Your task to perform on an android device: Show me the alarms in the clock app Image 0: 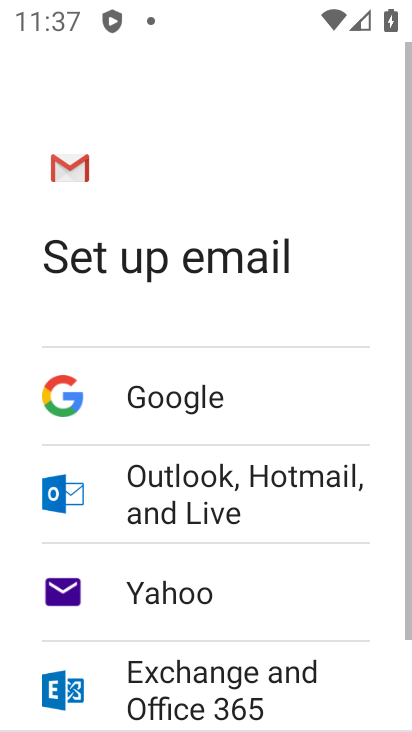
Step 0: press home button
Your task to perform on an android device: Show me the alarms in the clock app Image 1: 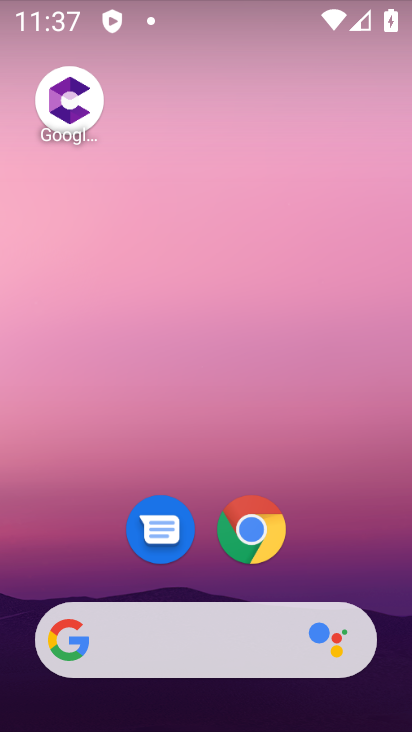
Step 1: drag from (264, 573) to (246, 14)
Your task to perform on an android device: Show me the alarms in the clock app Image 2: 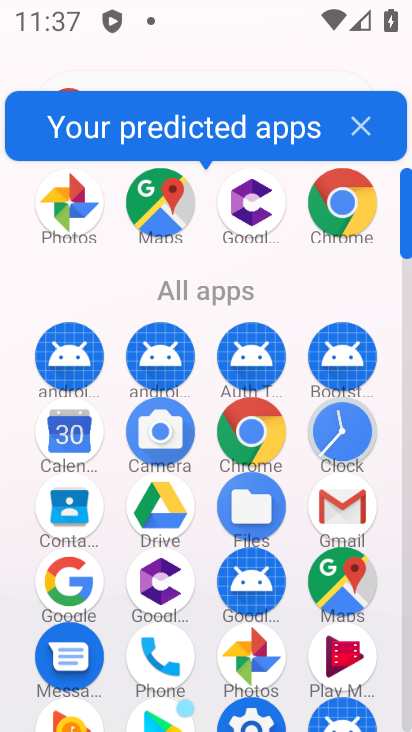
Step 2: click (170, 660)
Your task to perform on an android device: Show me the alarms in the clock app Image 3: 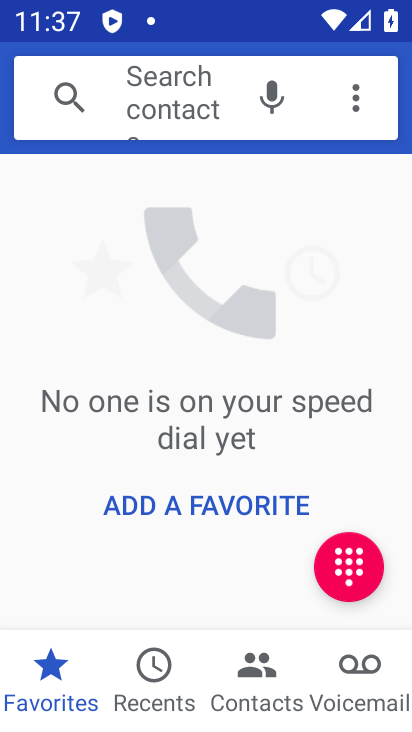
Step 3: press home button
Your task to perform on an android device: Show me the alarms in the clock app Image 4: 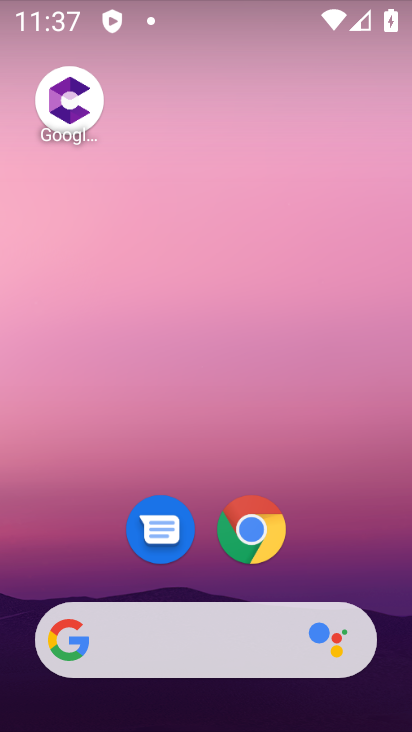
Step 4: drag from (324, 539) to (310, 13)
Your task to perform on an android device: Show me the alarms in the clock app Image 5: 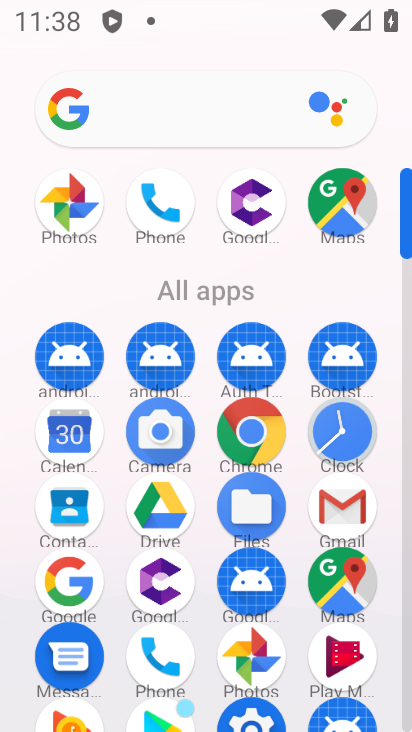
Step 5: click (323, 461)
Your task to perform on an android device: Show me the alarms in the clock app Image 6: 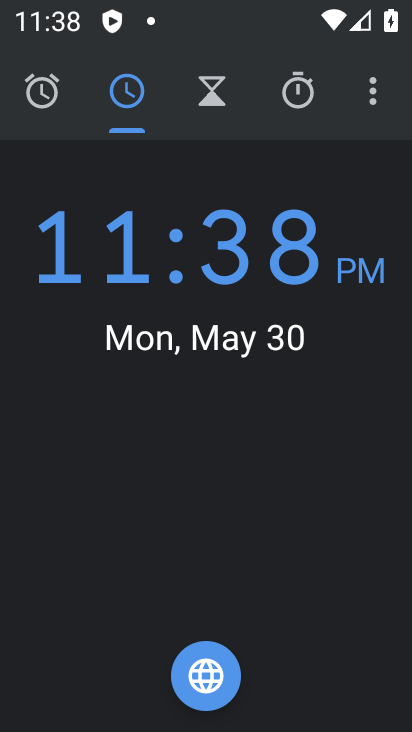
Step 6: click (62, 107)
Your task to perform on an android device: Show me the alarms in the clock app Image 7: 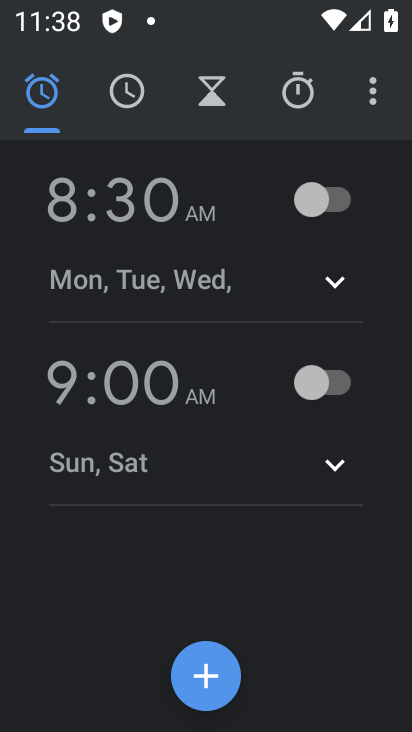
Step 7: task complete